Your task to perform on an android device: Open eBay Image 0: 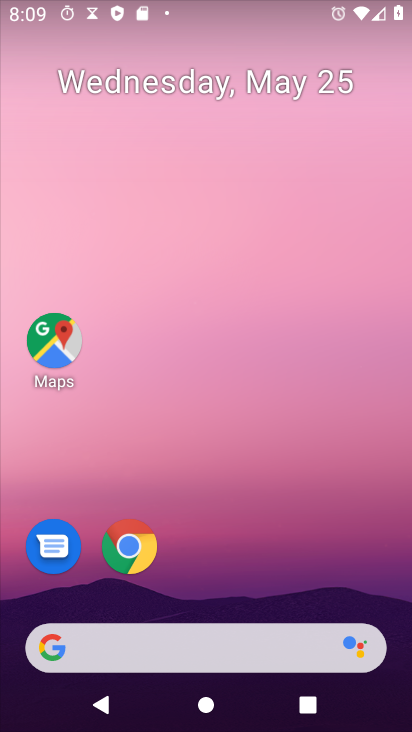
Step 0: click (124, 547)
Your task to perform on an android device: Open eBay Image 1: 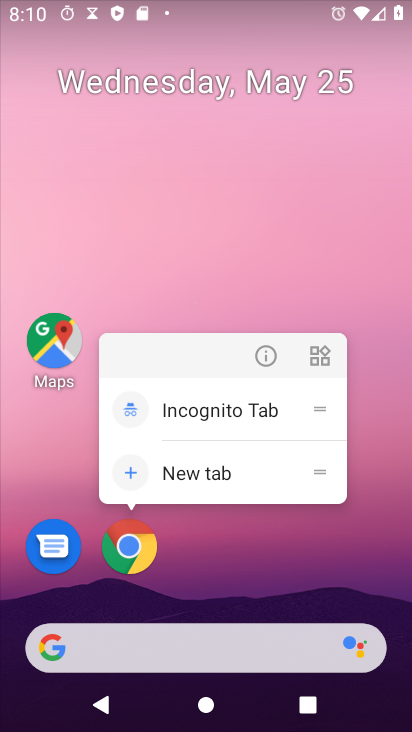
Step 1: click (124, 553)
Your task to perform on an android device: Open eBay Image 2: 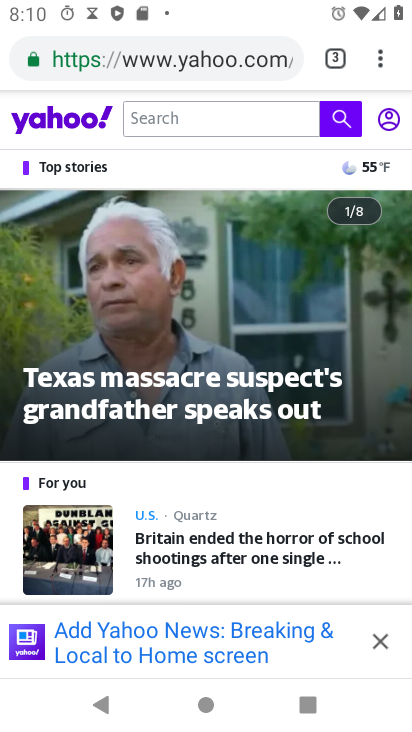
Step 2: press back button
Your task to perform on an android device: Open eBay Image 3: 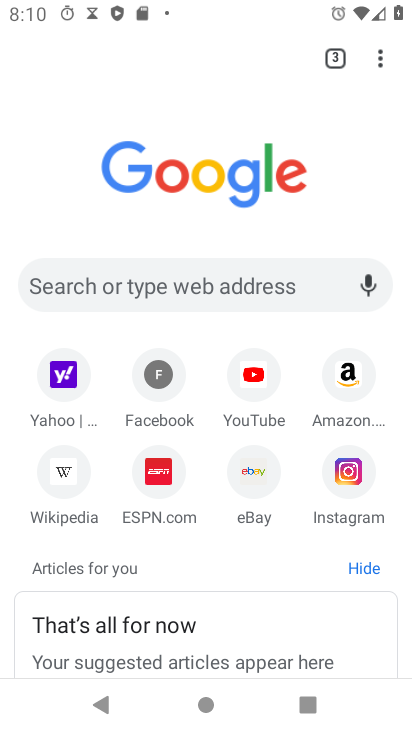
Step 3: click (242, 480)
Your task to perform on an android device: Open eBay Image 4: 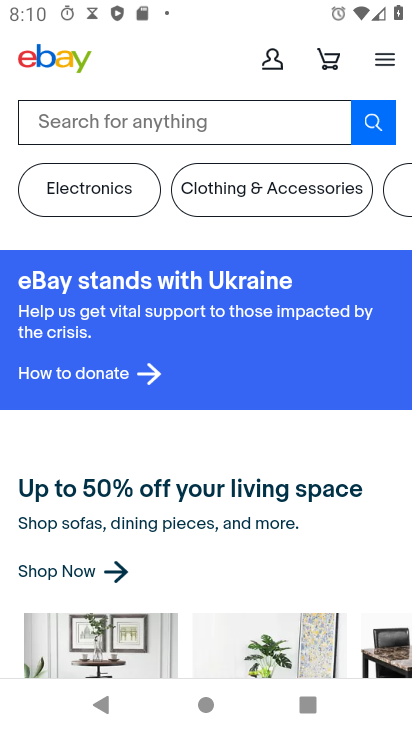
Step 4: task complete